Your task to perform on an android device: Search for seafood restaurants on Google Maps Image 0: 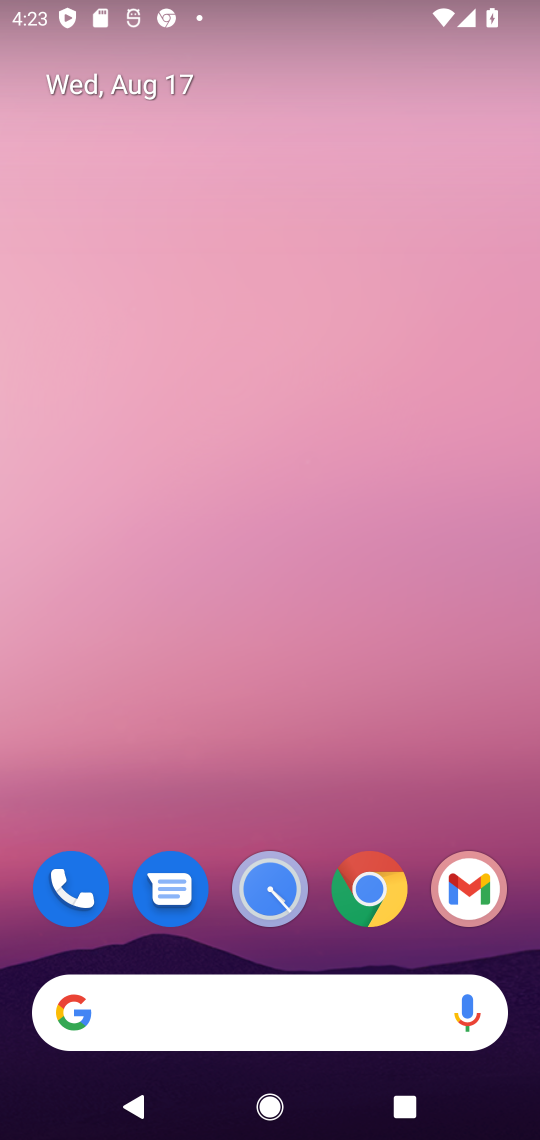
Step 0: drag from (279, 806) to (338, 10)
Your task to perform on an android device: Search for seafood restaurants on Google Maps Image 1: 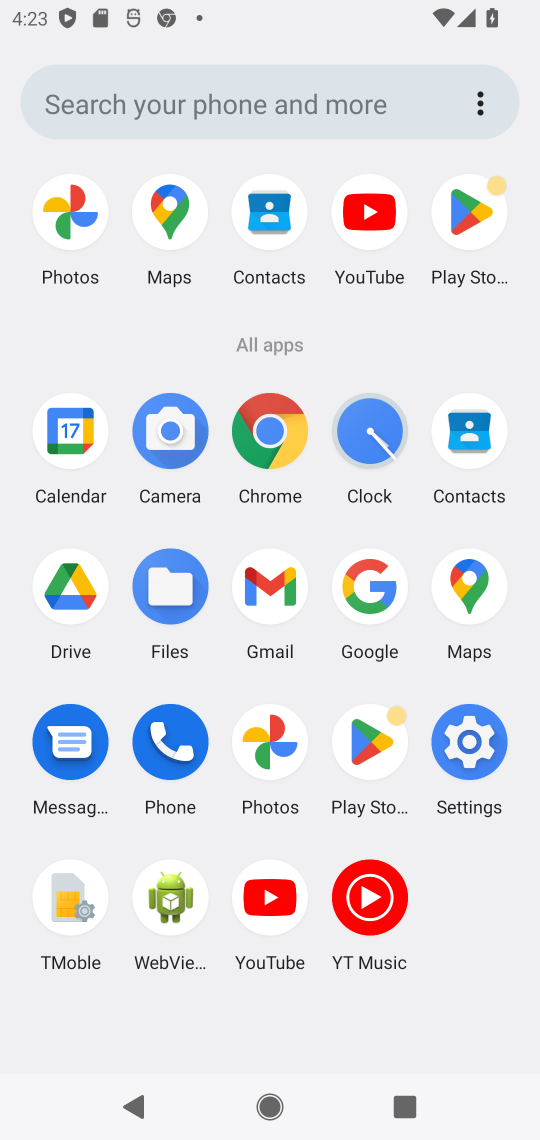
Step 1: click (172, 205)
Your task to perform on an android device: Search for seafood restaurants on Google Maps Image 2: 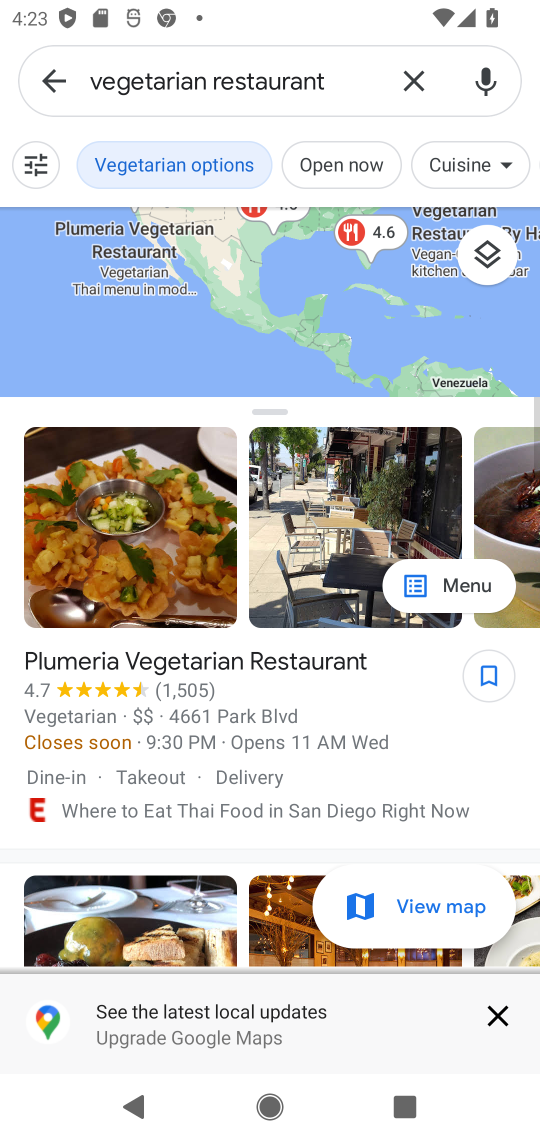
Step 2: click (415, 78)
Your task to perform on an android device: Search for seafood restaurants on Google Maps Image 3: 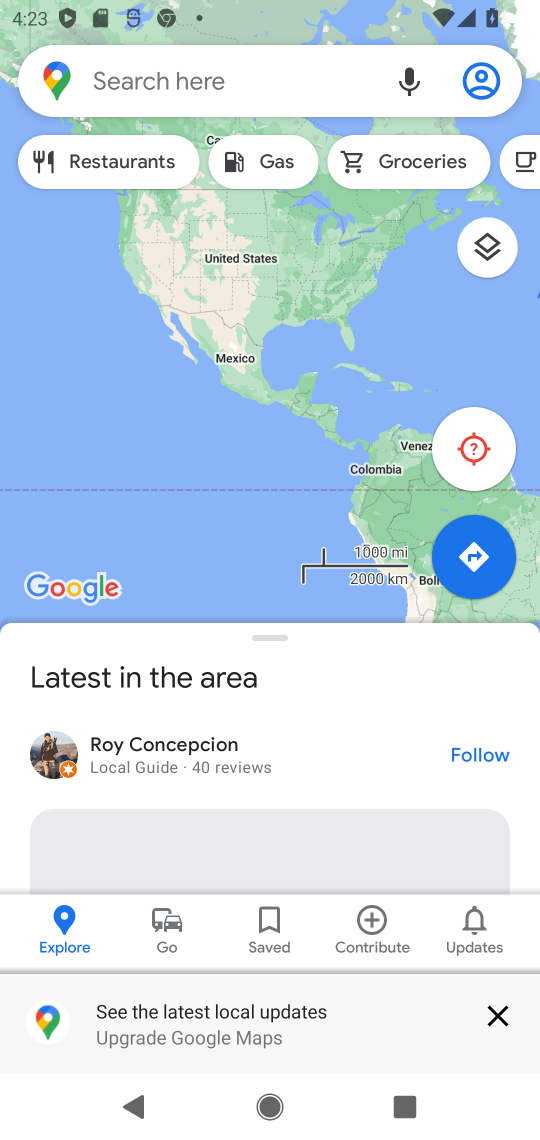
Step 3: click (192, 78)
Your task to perform on an android device: Search for seafood restaurants on Google Maps Image 4: 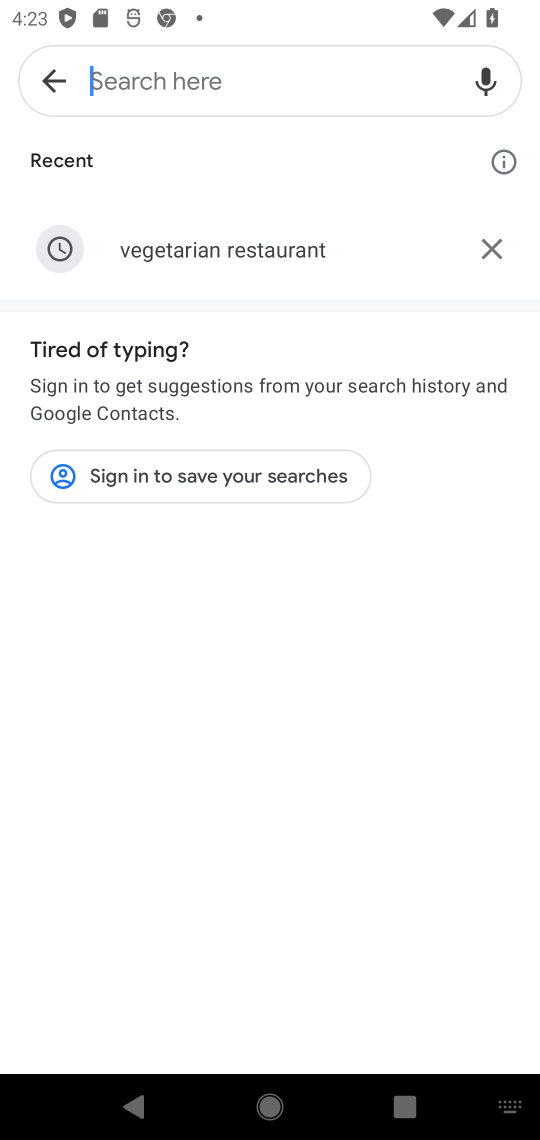
Step 4: type "seafood"
Your task to perform on an android device: Search for seafood restaurants on Google Maps Image 5: 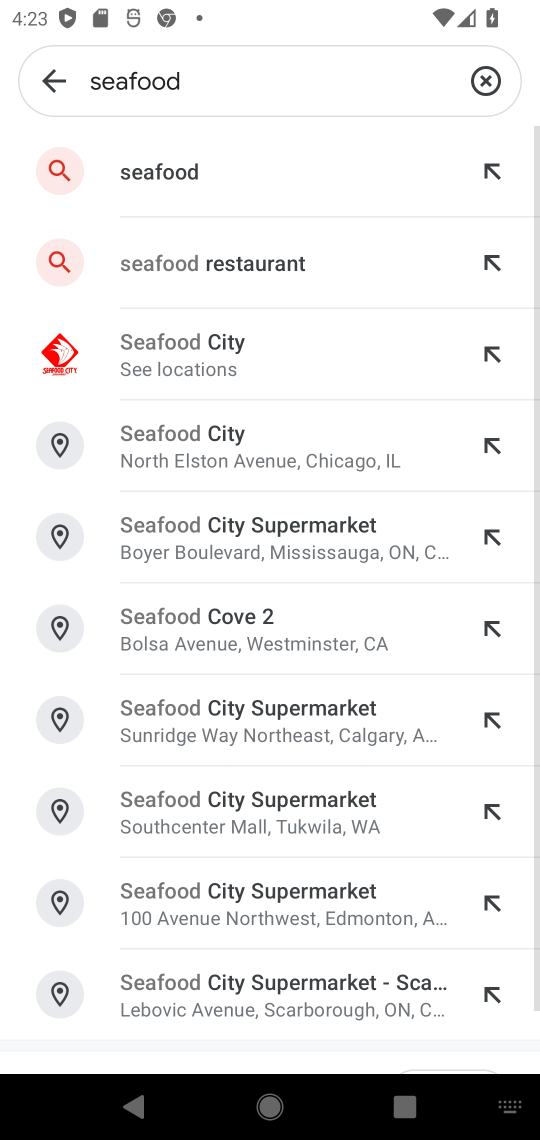
Step 5: click (218, 263)
Your task to perform on an android device: Search for seafood restaurants on Google Maps Image 6: 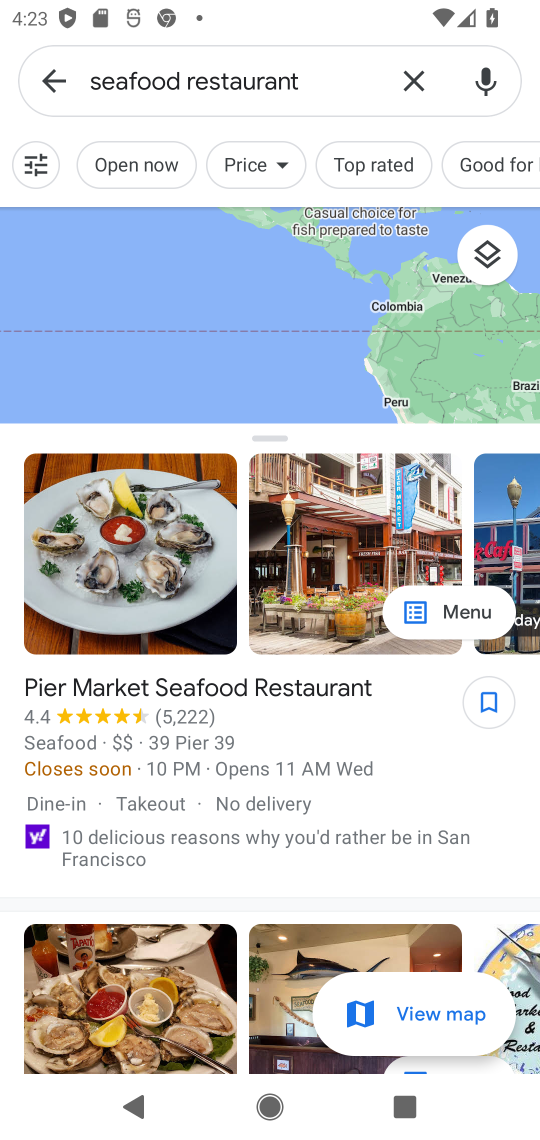
Step 6: task complete